Your task to perform on an android device: search for starred emails in the gmail app Image 0: 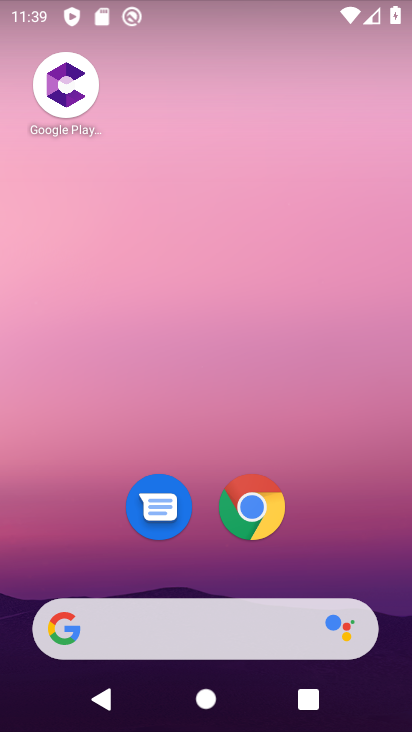
Step 0: drag from (321, 519) to (290, 76)
Your task to perform on an android device: search for starred emails in the gmail app Image 1: 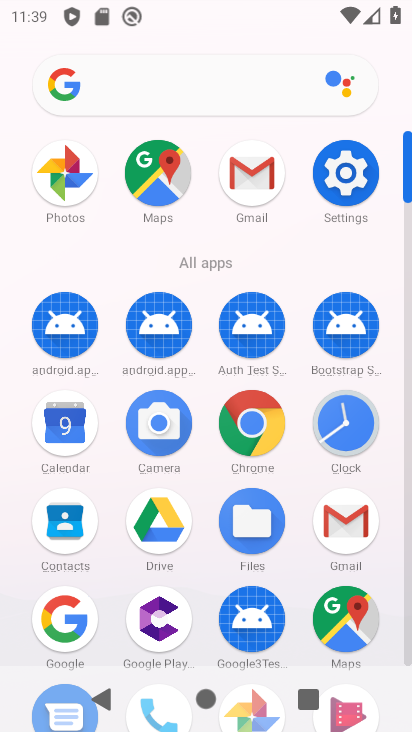
Step 1: click (262, 164)
Your task to perform on an android device: search for starred emails in the gmail app Image 2: 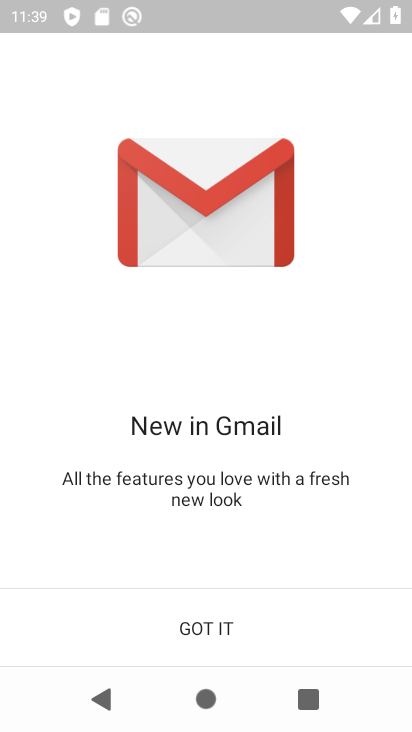
Step 2: click (190, 605)
Your task to perform on an android device: search for starred emails in the gmail app Image 3: 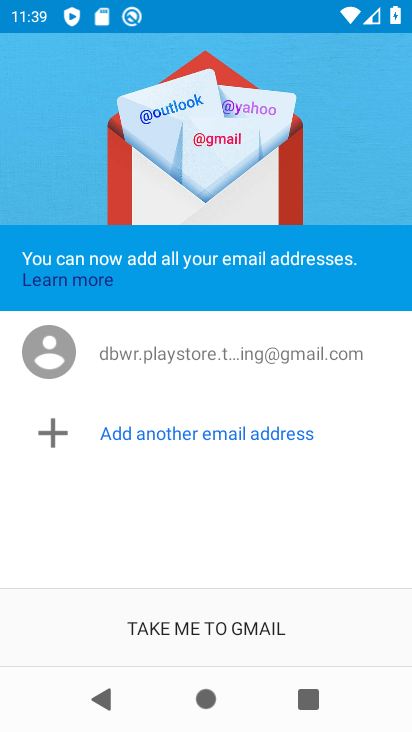
Step 3: click (198, 615)
Your task to perform on an android device: search for starred emails in the gmail app Image 4: 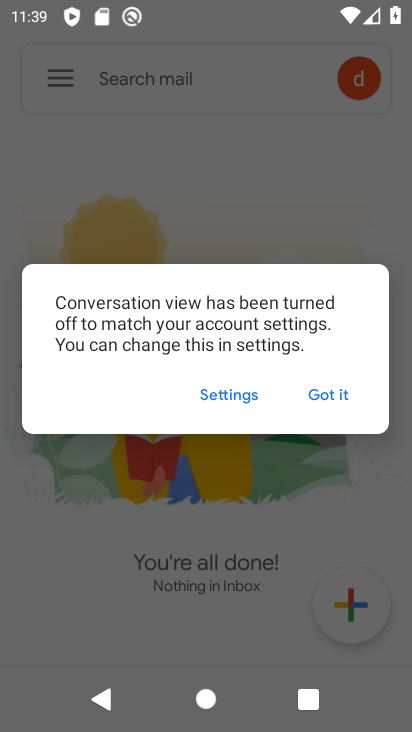
Step 4: click (320, 393)
Your task to perform on an android device: search for starred emails in the gmail app Image 5: 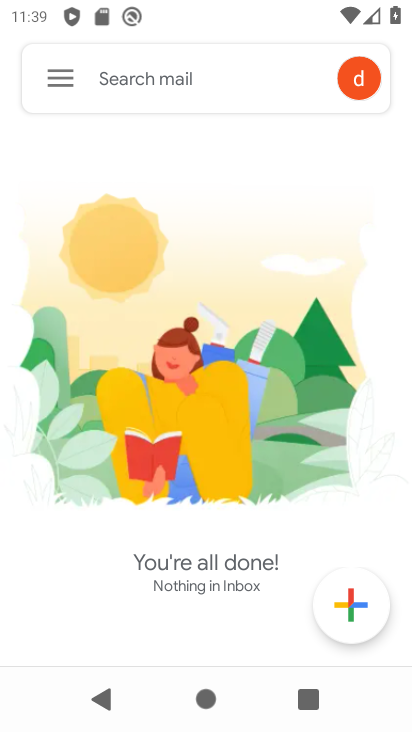
Step 5: click (61, 83)
Your task to perform on an android device: search for starred emails in the gmail app Image 6: 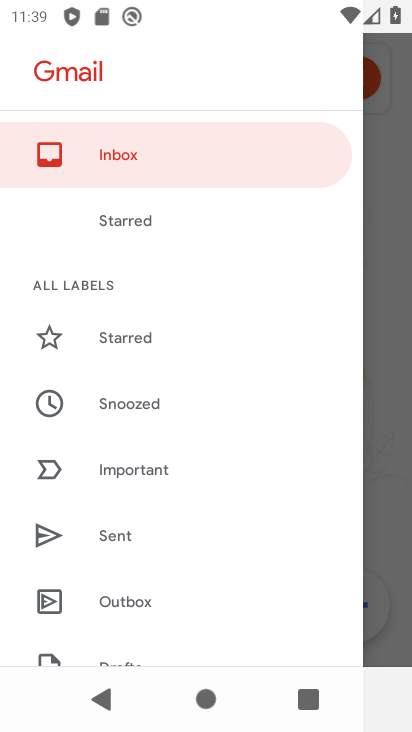
Step 6: click (118, 216)
Your task to perform on an android device: search for starred emails in the gmail app Image 7: 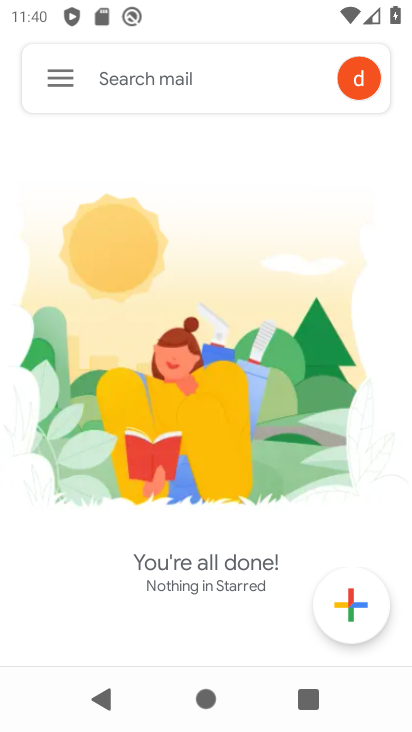
Step 7: click (64, 87)
Your task to perform on an android device: search for starred emails in the gmail app Image 8: 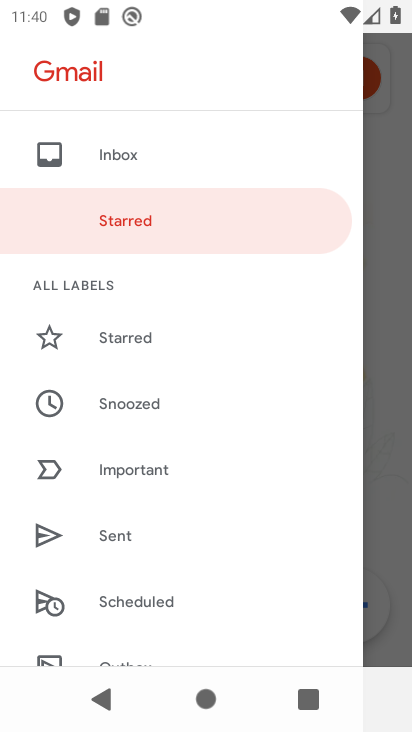
Step 8: task complete